Your task to perform on an android device: Turn off the flashlight Image 0: 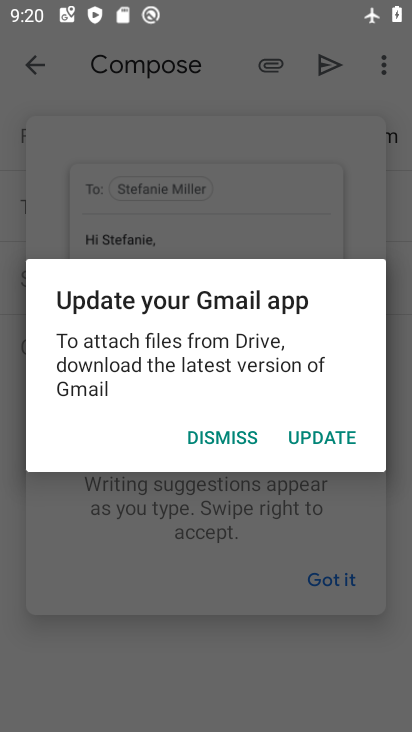
Step 0: press home button
Your task to perform on an android device: Turn off the flashlight Image 1: 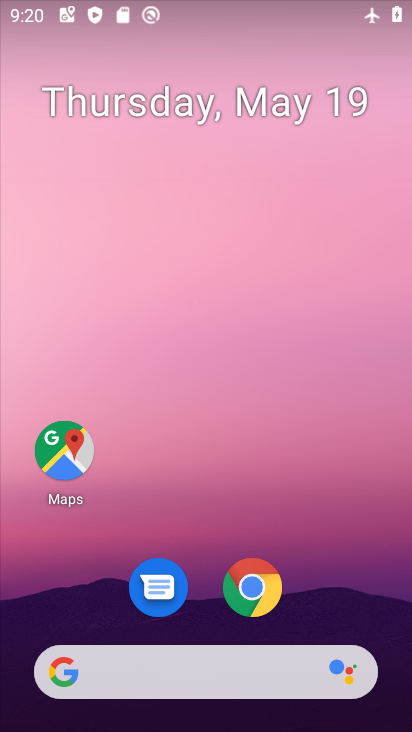
Step 1: task complete